Your task to perform on an android device: open app "Instagram" (install if not already installed) Image 0: 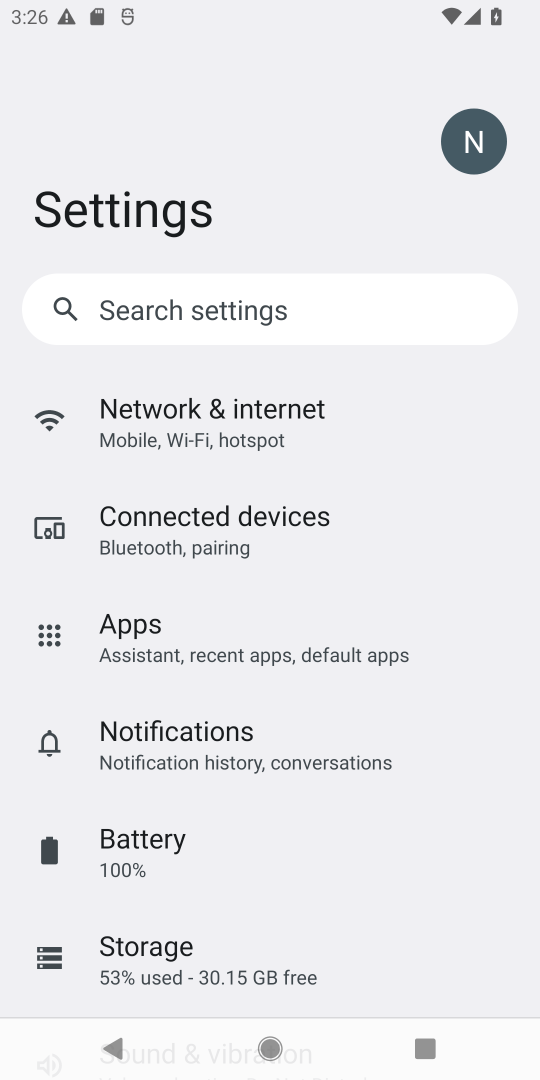
Step 0: press home button
Your task to perform on an android device: open app "Instagram" (install if not already installed) Image 1: 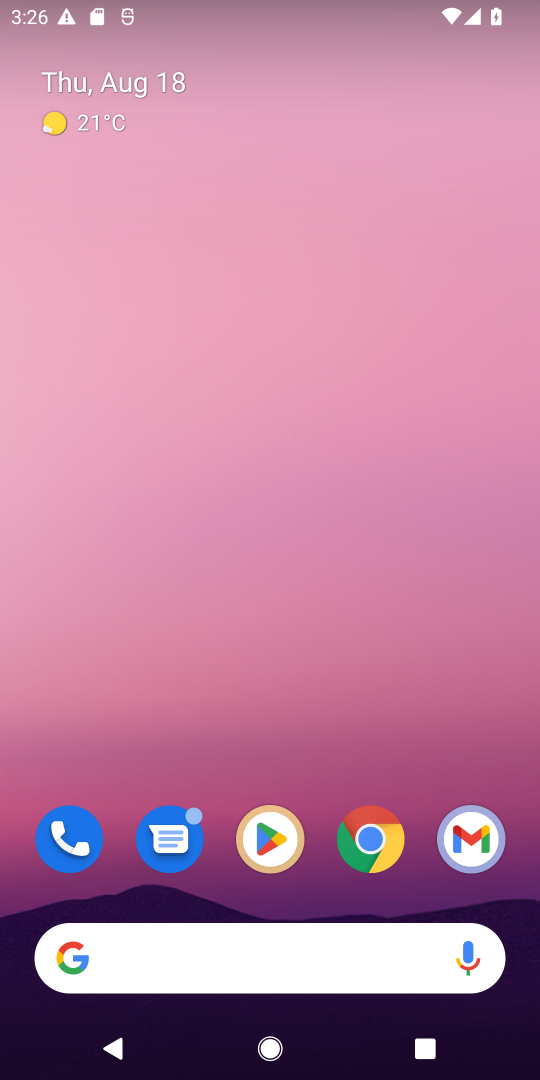
Step 1: click (262, 825)
Your task to perform on an android device: open app "Instagram" (install if not already installed) Image 2: 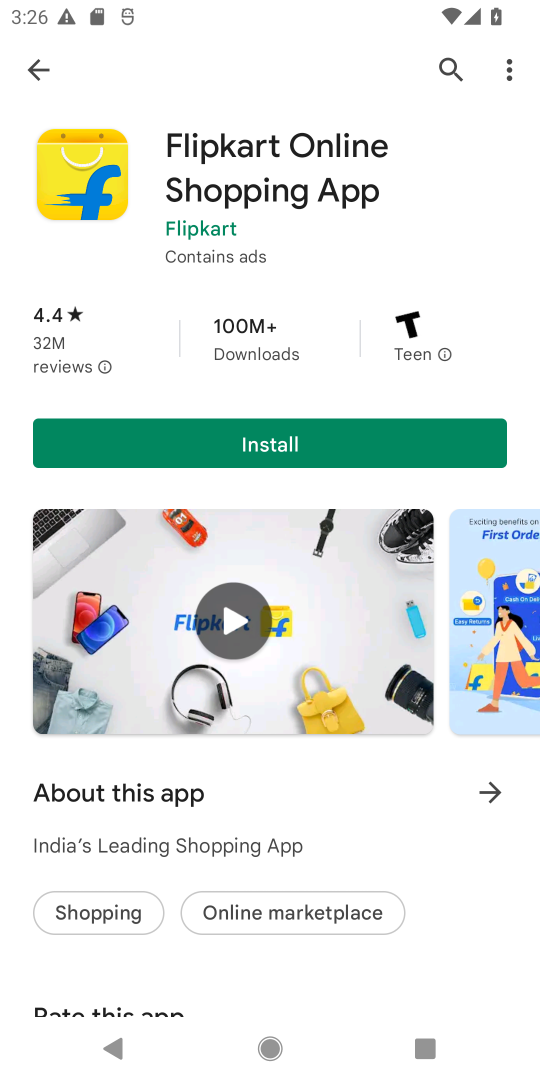
Step 2: click (82, 74)
Your task to perform on an android device: open app "Instagram" (install if not already installed) Image 3: 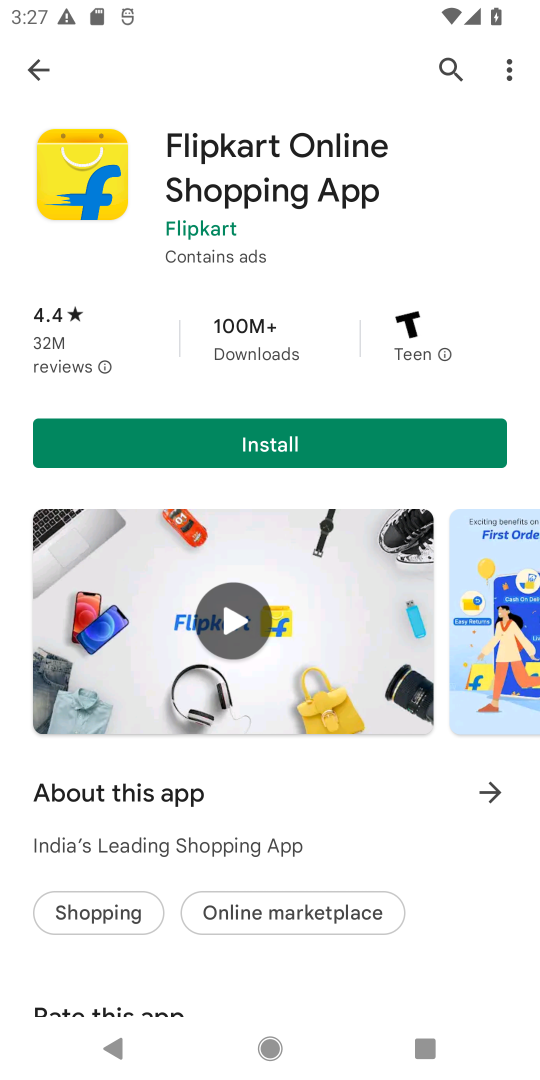
Step 3: click (43, 65)
Your task to perform on an android device: open app "Instagram" (install if not already installed) Image 4: 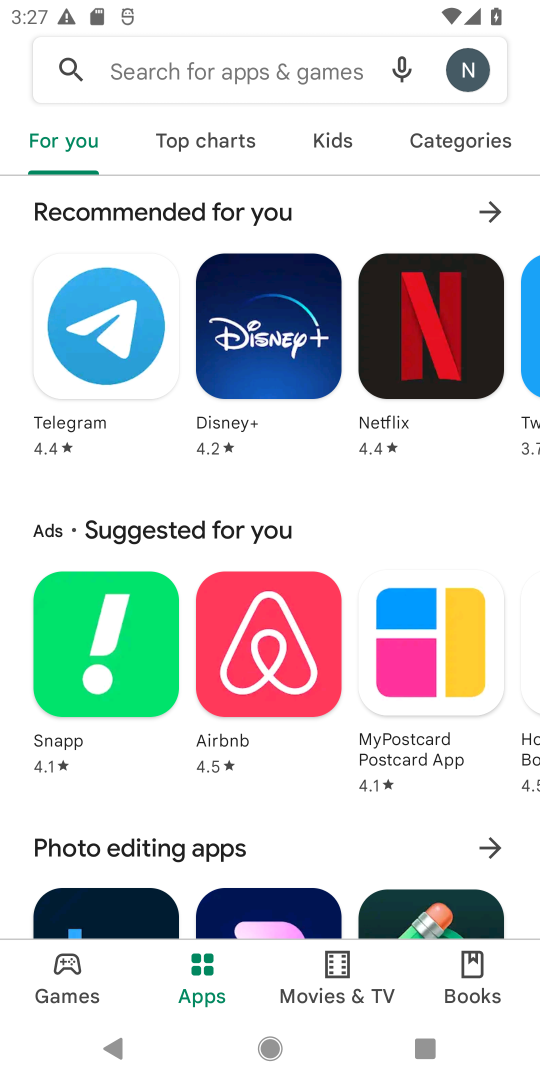
Step 4: click (154, 73)
Your task to perform on an android device: open app "Instagram" (install if not already installed) Image 5: 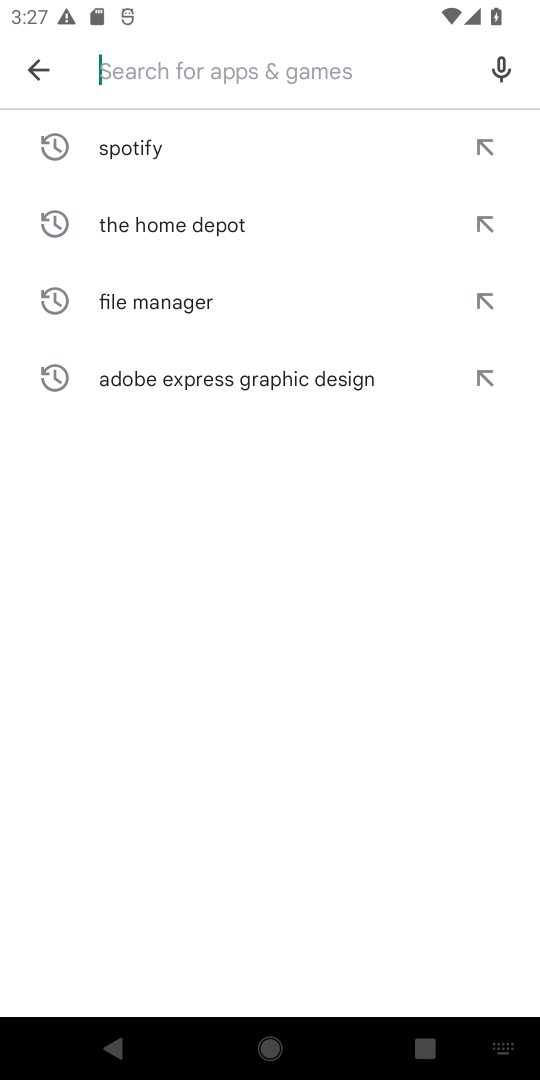
Step 5: type "Instagram"
Your task to perform on an android device: open app "Instagram" (install if not already installed) Image 6: 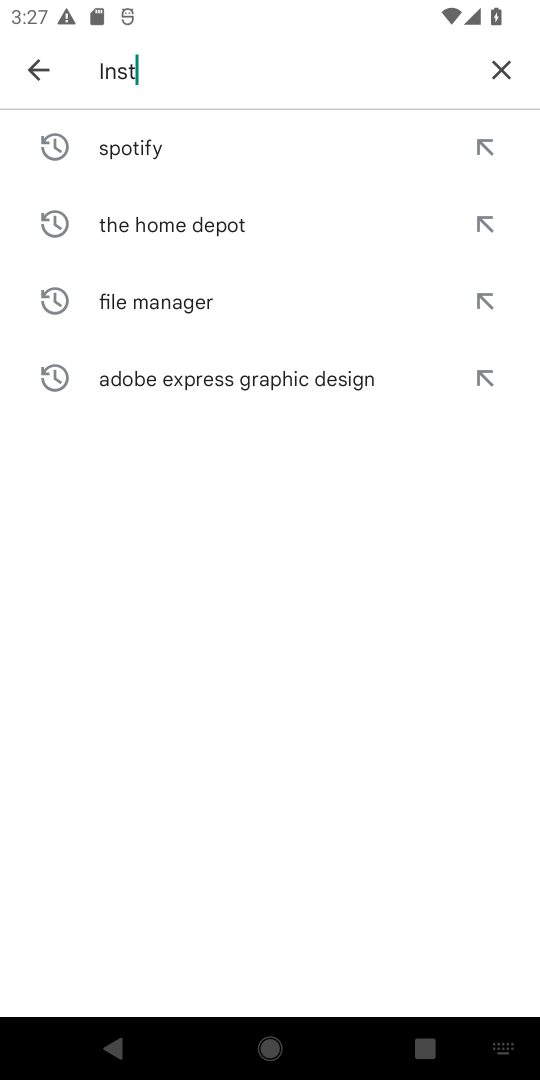
Step 6: type ""
Your task to perform on an android device: open app "Instagram" (install if not already installed) Image 7: 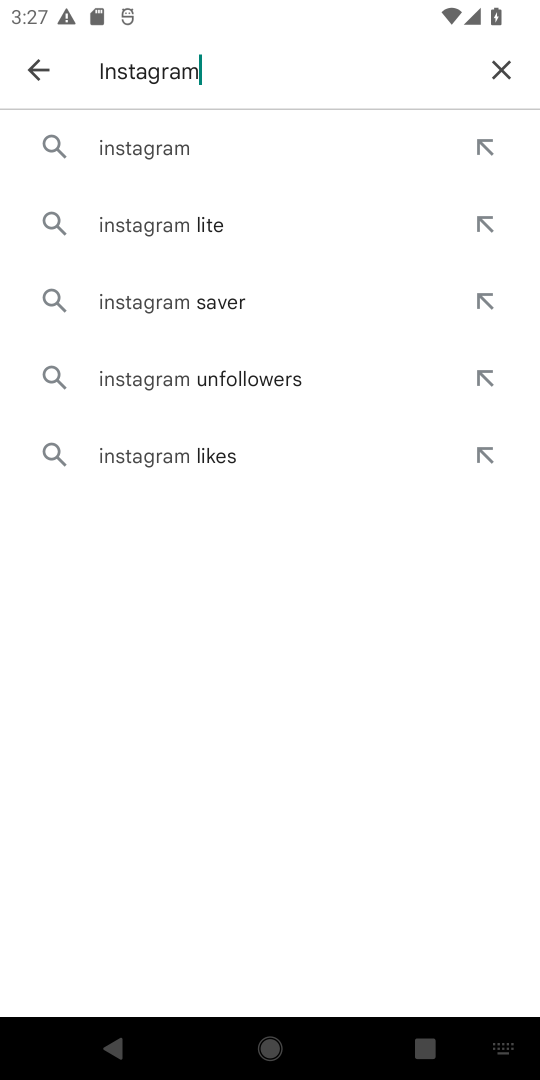
Step 7: click (157, 141)
Your task to perform on an android device: open app "Instagram" (install if not already installed) Image 8: 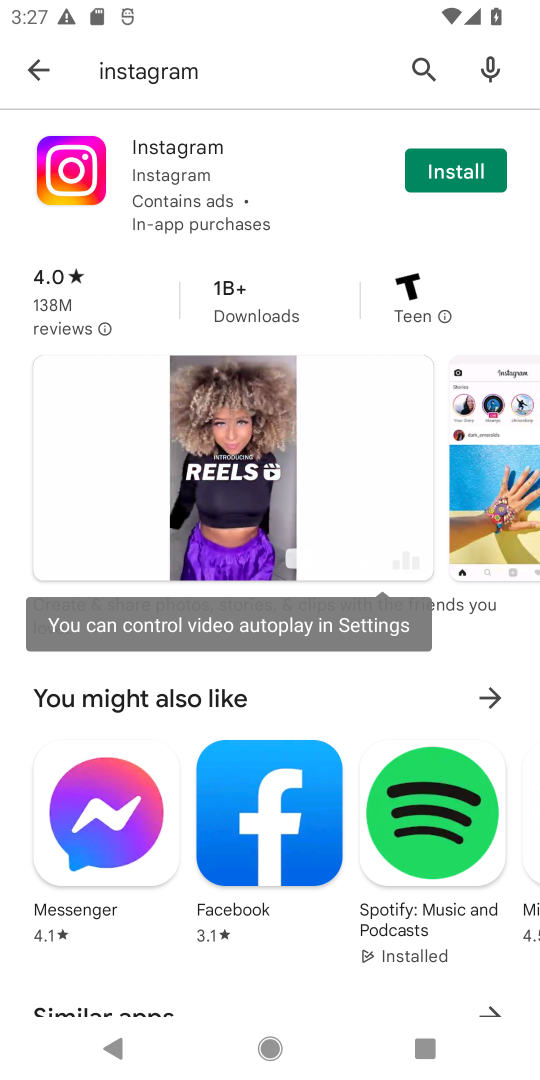
Step 8: click (459, 176)
Your task to perform on an android device: open app "Instagram" (install if not already installed) Image 9: 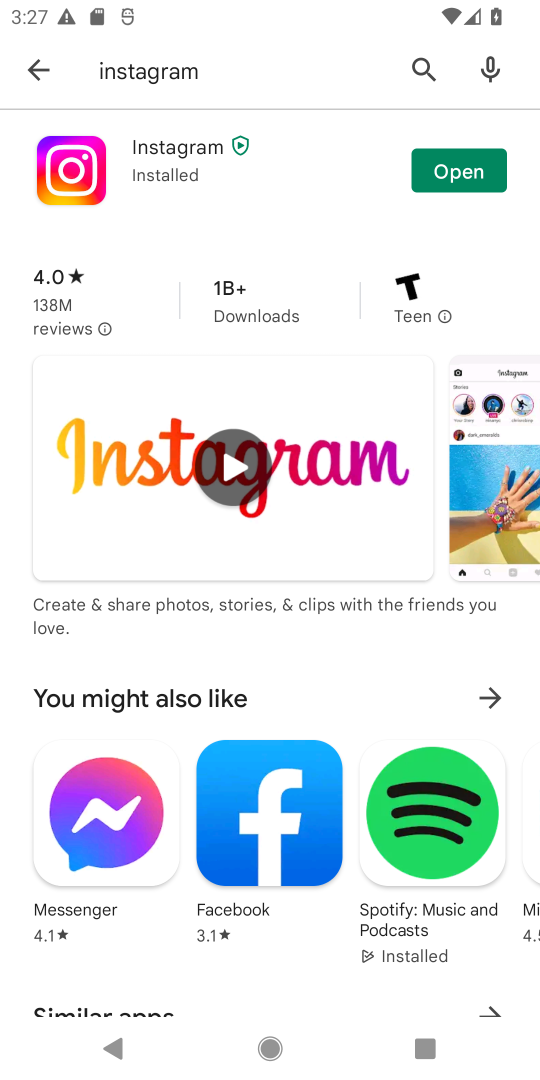
Step 9: click (490, 163)
Your task to perform on an android device: open app "Instagram" (install if not already installed) Image 10: 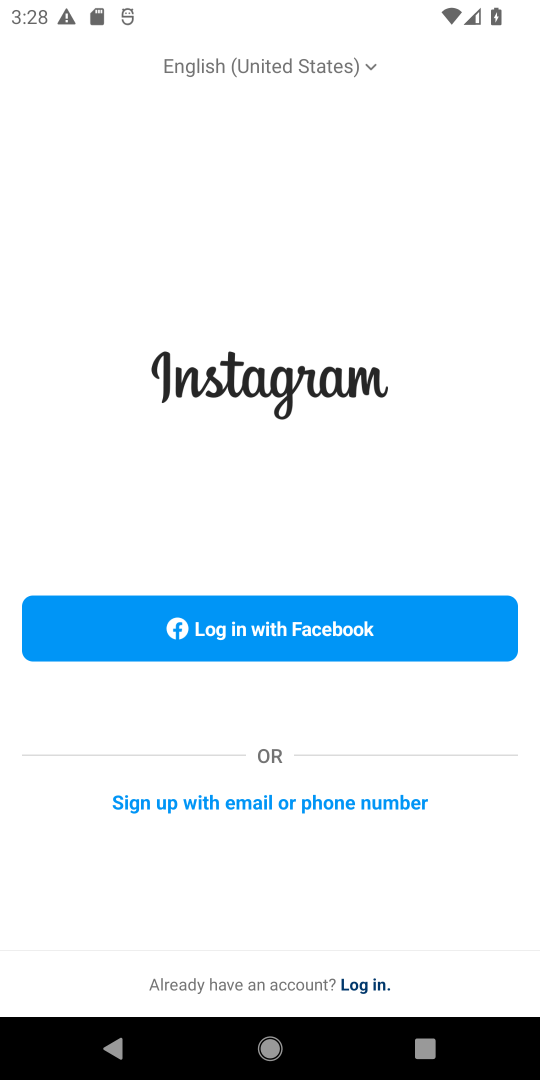
Step 10: task complete